Your task to perform on an android device: turn off priority inbox in the gmail app Image 0: 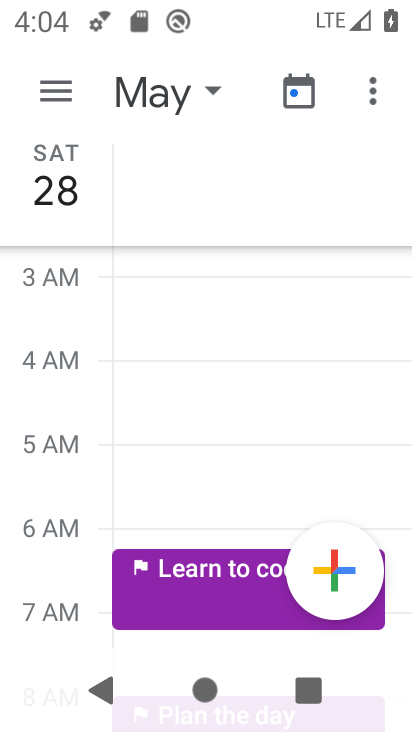
Step 0: press home button
Your task to perform on an android device: turn off priority inbox in the gmail app Image 1: 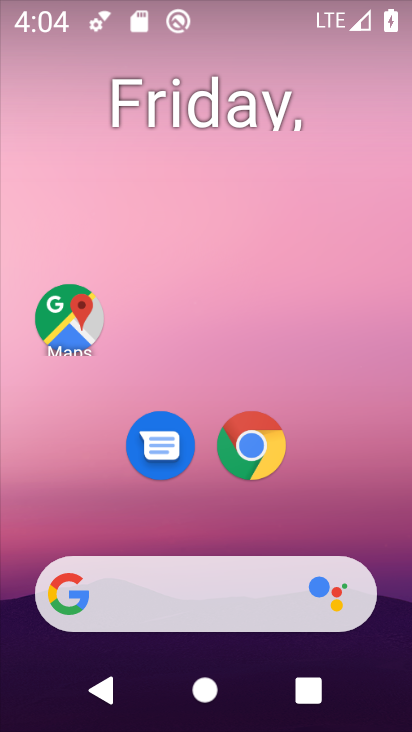
Step 1: drag from (382, 525) to (319, 139)
Your task to perform on an android device: turn off priority inbox in the gmail app Image 2: 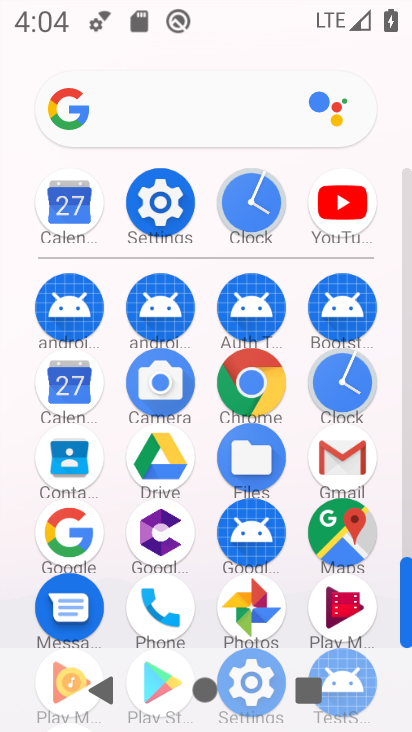
Step 2: click (343, 474)
Your task to perform on an android device: turn off priority inbox in the gmail app Image 3: 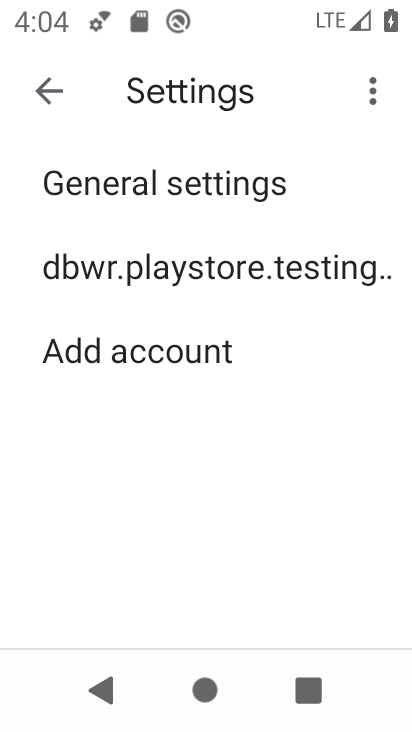
Step 3: click (270, 260)
Your task to perform on an android device: turn off priority inbox in the gmail app Image 4: 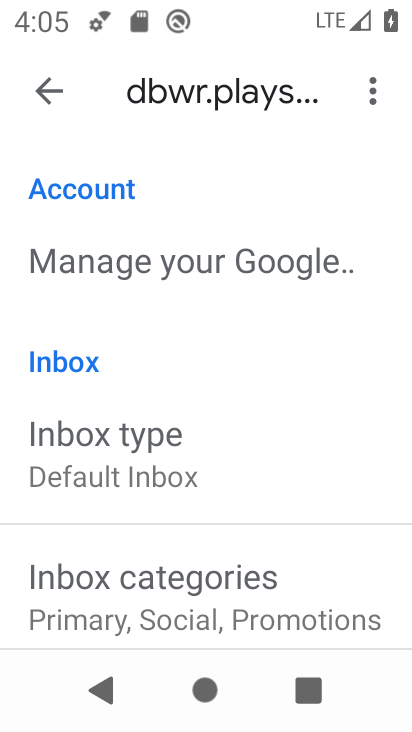
Step 4: click (294, 481)
Your task to perform on an android device: turn off priority inbox in the gmail app Image 5: 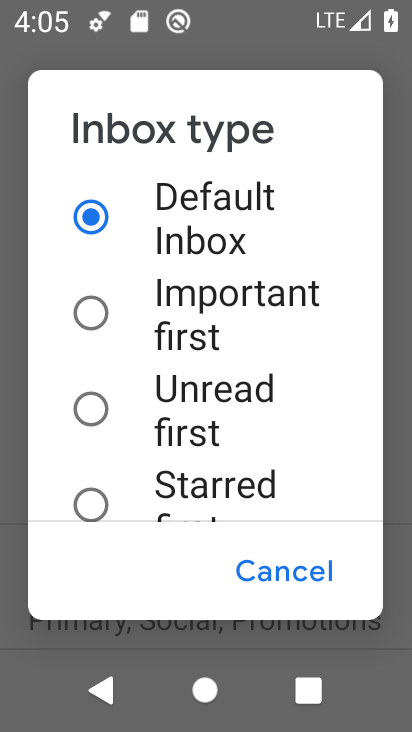
Step 5: task complete